Your task to perform on an android device: Go to sound settings Image 0: 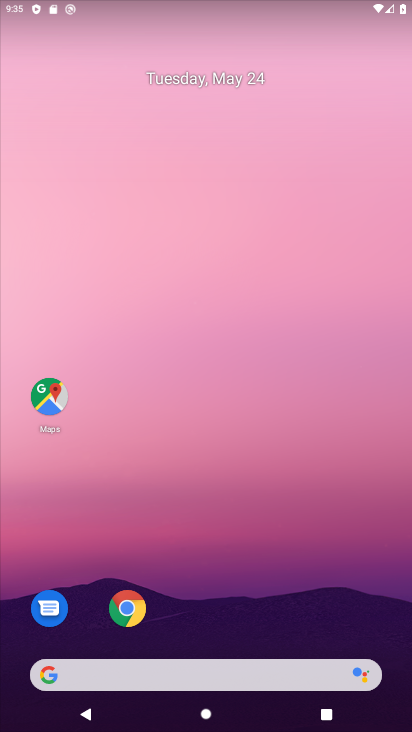
Step 0: drag from (243, 622) to (290, 17)
Your task to perform on an android device: Go to sound settings Image 1: 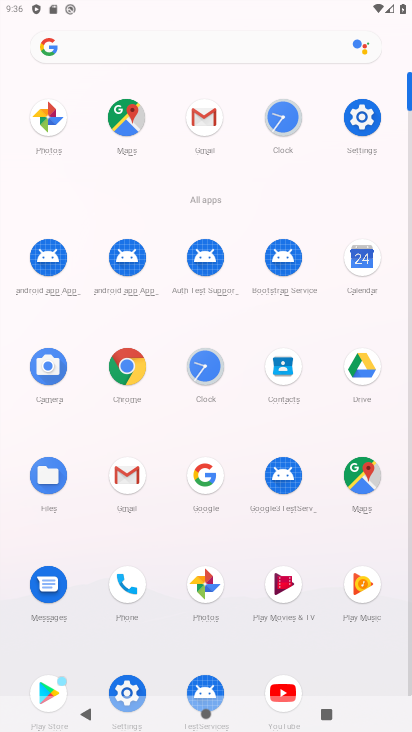
Step 1: click (364, 119)
Your task to perform on an android device: Go to sound settings Image 2: 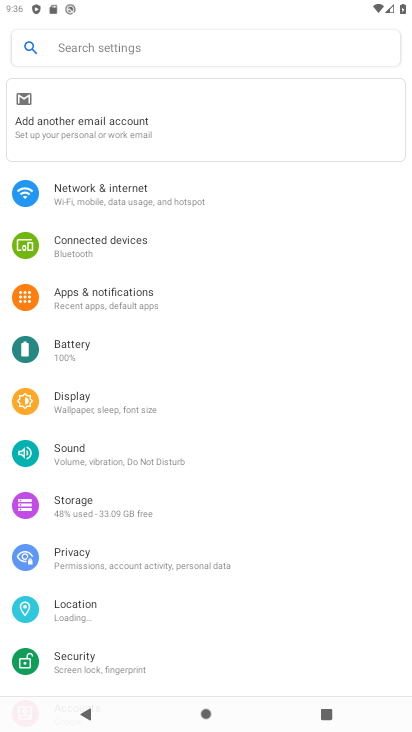
Step 2: click (101, 451)
Your task to perform on an android device: Go to sound settings Image 3: 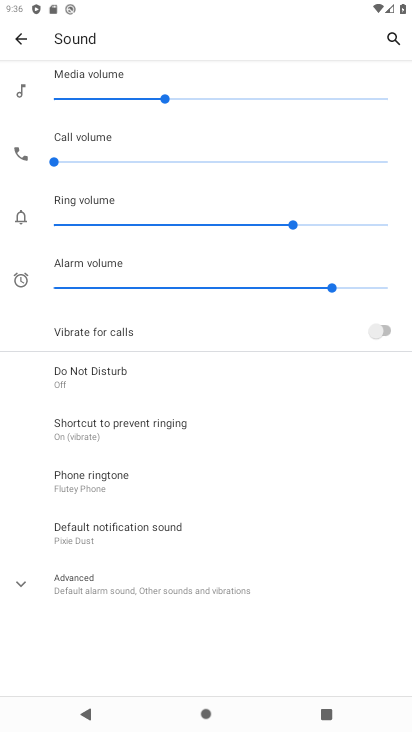
Step 3: task complete